Your task to perform on an android device: What's on my calendar today? Image 0: 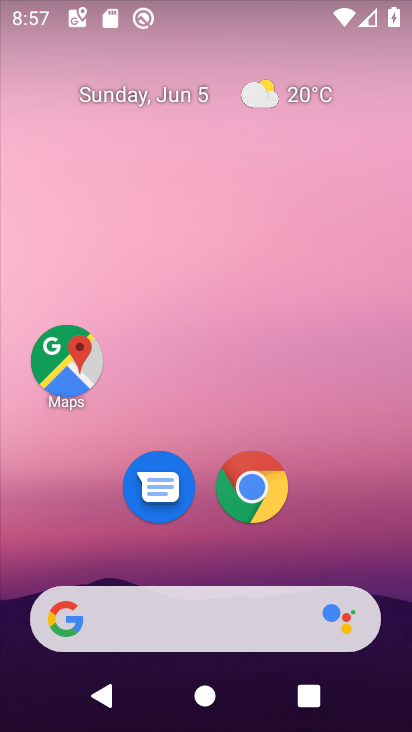
Step 0: drag from (288, 526) to (316, 174)
Your task to perform on an android device: What's on my calendar today? Image 1: 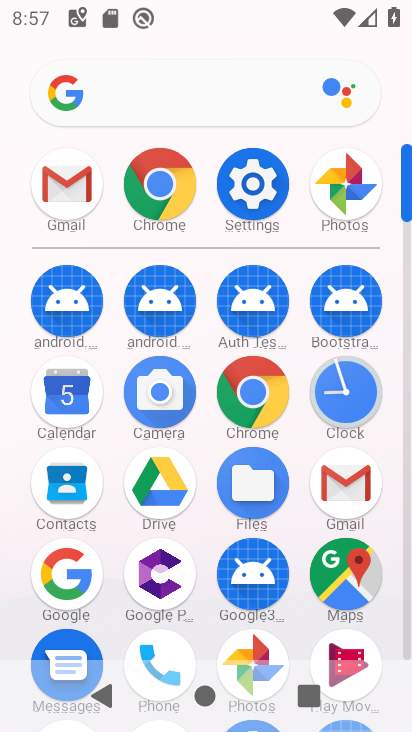
Step 1: click (76, 393)
Your task to perform on an android device: What's on my calendar today? Image 2: 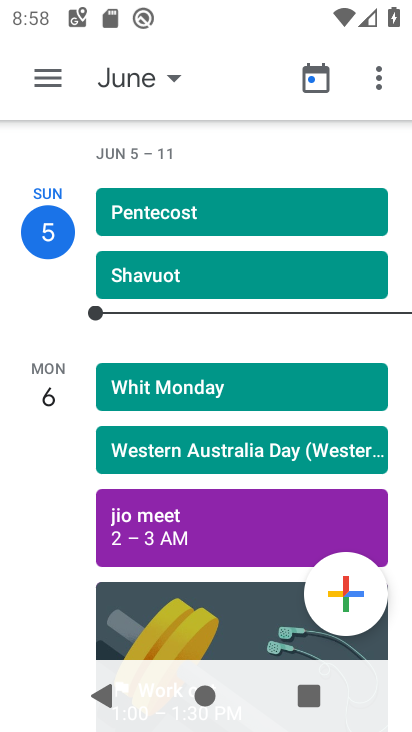
Step 2: task complete